Your task to perform on an android device: snooze an email in the gmail app Image 0: 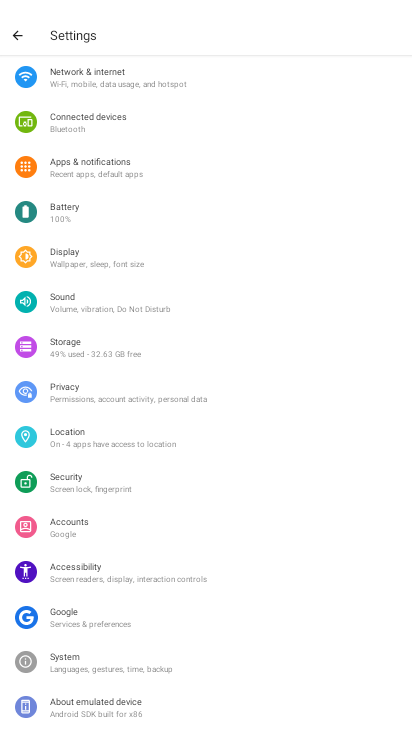
Step 0: press home button
Your task to perform on an android device: snooze an email in the gmail app Image 1: 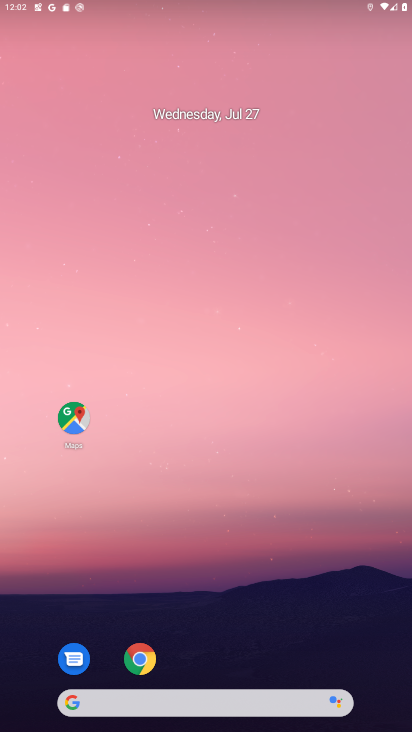
Step 1: drag from (268, 695) to (271, 3)
Your task to perform on an android device: snooze an email in the gmail app Image 2: 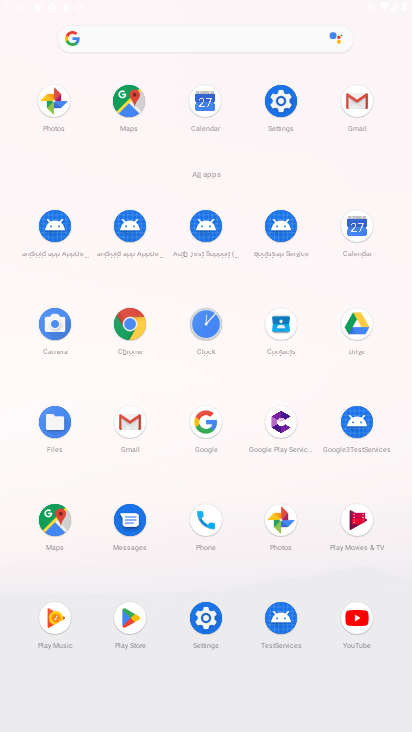
Step 2: click (121, 422)
Your task to perform on an android device: snooze an email in the gmail app Image 3: 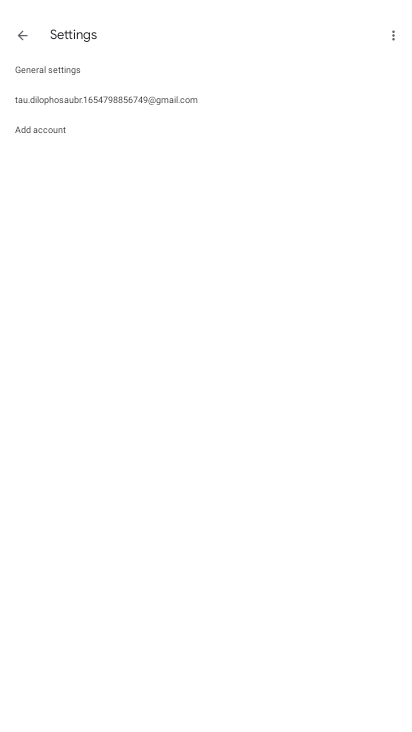
Step 3: press back button
Your task to perform on an android device: snooze an email in the gmail app Image 4: 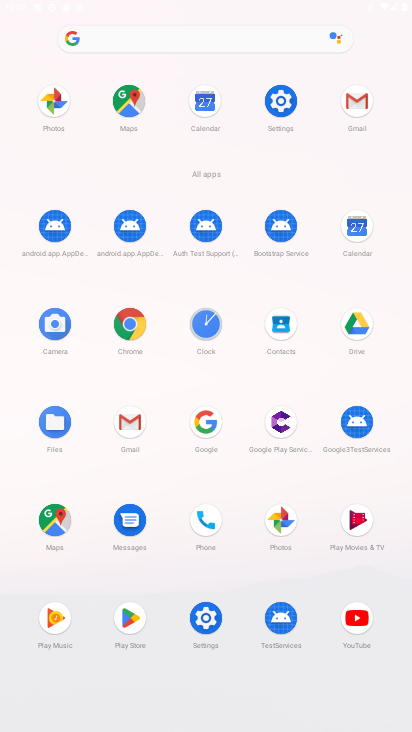
Step 4: click (137, 427)
Your task to perform on an android device: snooze an email in the gmail app Image 5: 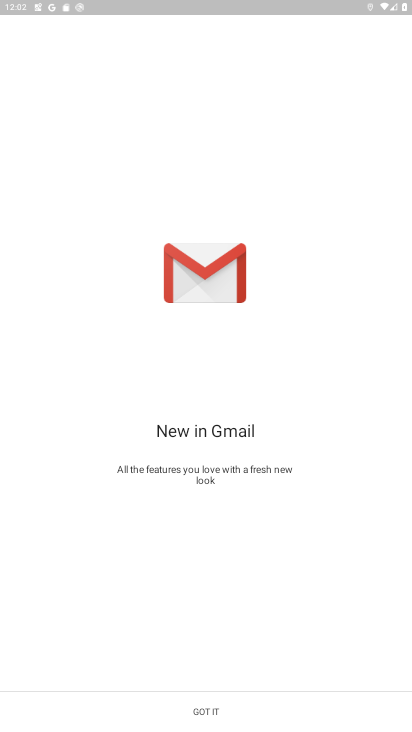
Step 5: click (194, 713)
Your task to perform on an android device: snooze an email in the gmail app Image 6: 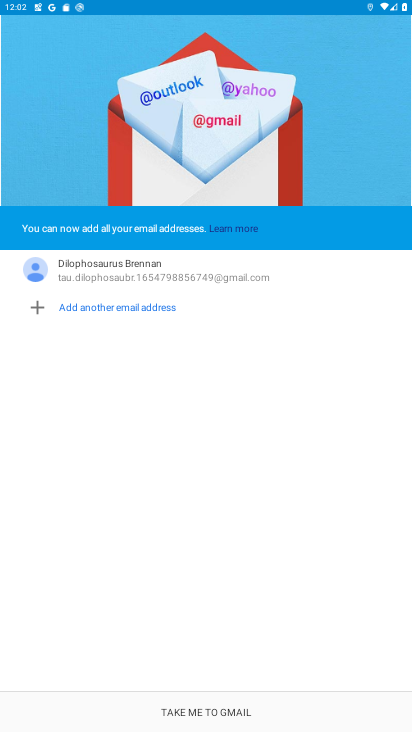
Step 6: click (197, 712)
Your task to perform on an android device: snooze an email in the gmail app Image 7: 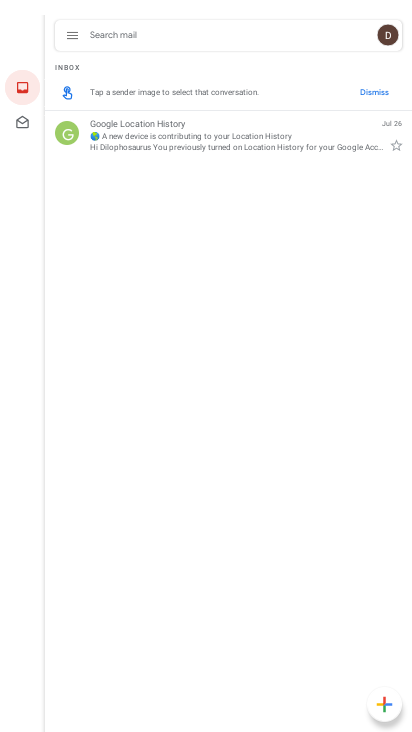
Step 7: click (75, 35)
Your task to perform on an android device: snooze an email in the gmail app Image 8: 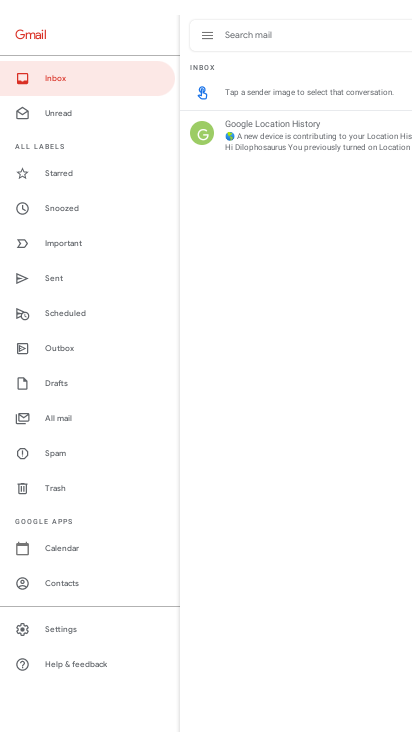
Step 8: click (75, 208)
Your task to perform on an android device: snooze an email in the gmail app Image 9: 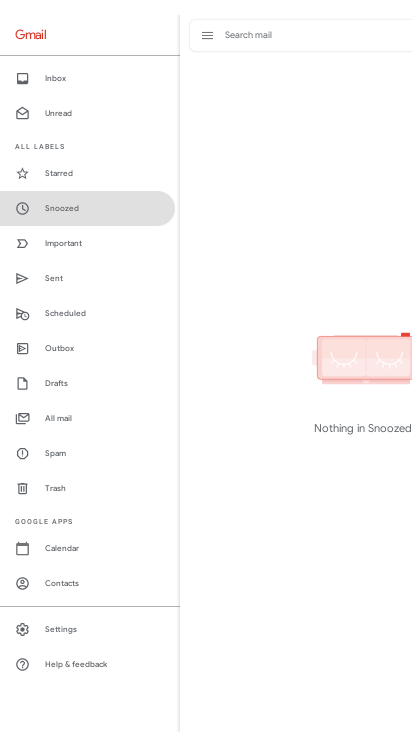
Step 9: task complete